Your task to perform on an android device: uninstall "Booking.com: Hotels and more" Image 0: 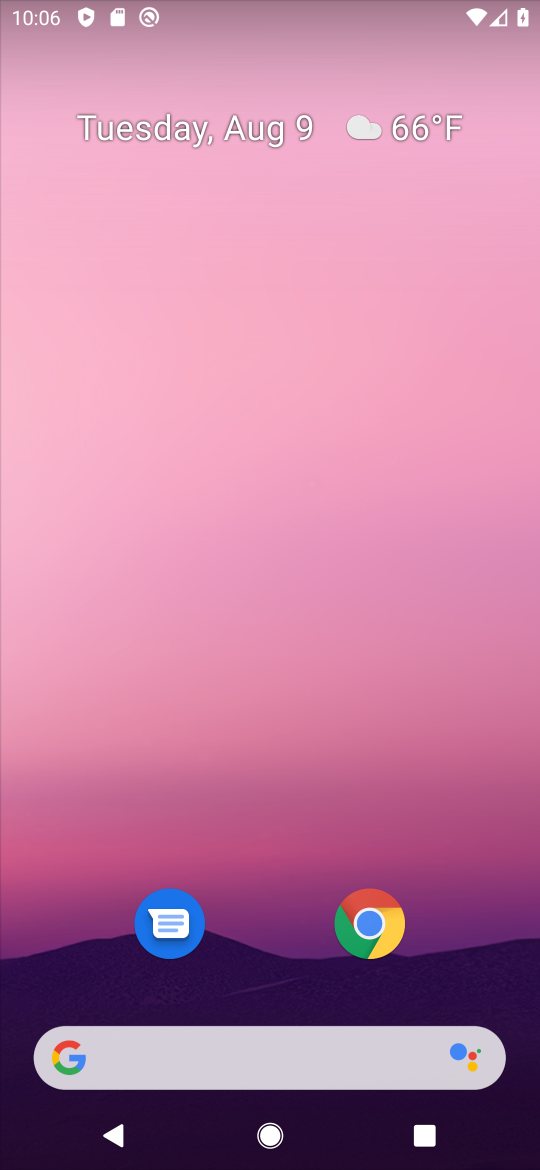
Step 0: press home button
Your task to perform on an android device: uninstall "Booking.com: Hotels and more" Image 1: 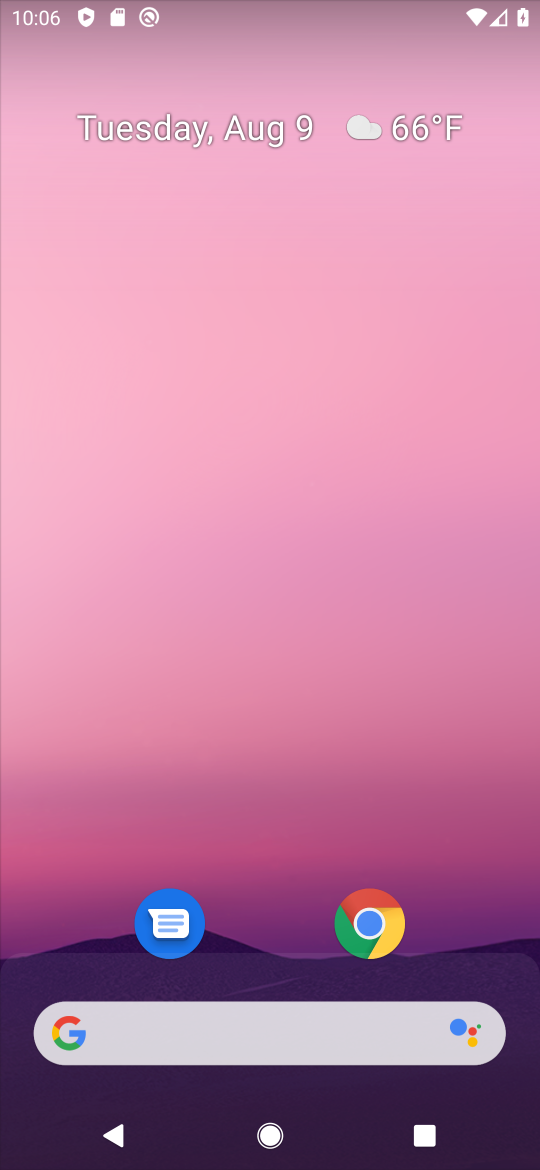
Step 1: drag from (285, 973) to (378, 95)
Your task to perform on an android device: uninstall "Booking.com: Hotels and more" Image 2: 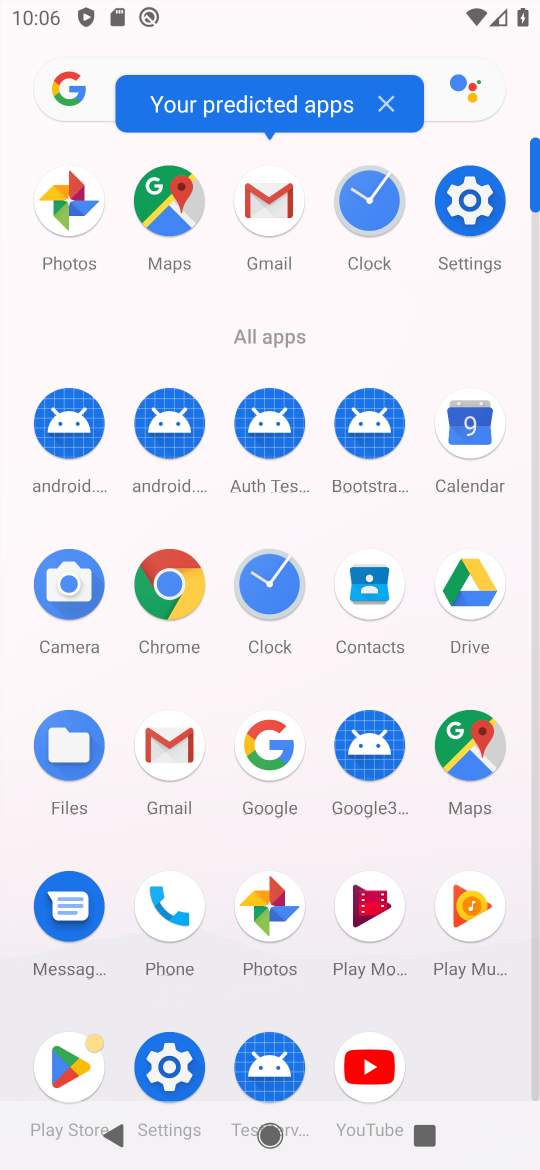
Step 2: click (61, 1054)
Your task to perform on an android device: uninstall "Booking.com: Hotels and more" Image 3: 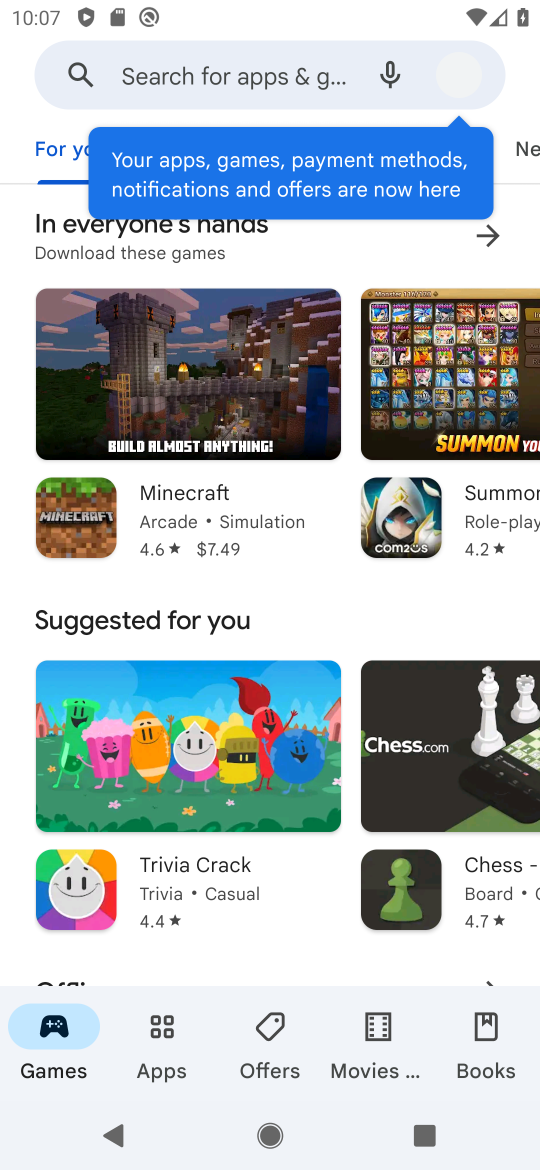
Step 3: click (156, 68)
Your task to perform on an android device: uninstall "Booking.com: Hotels and more" Image 4: 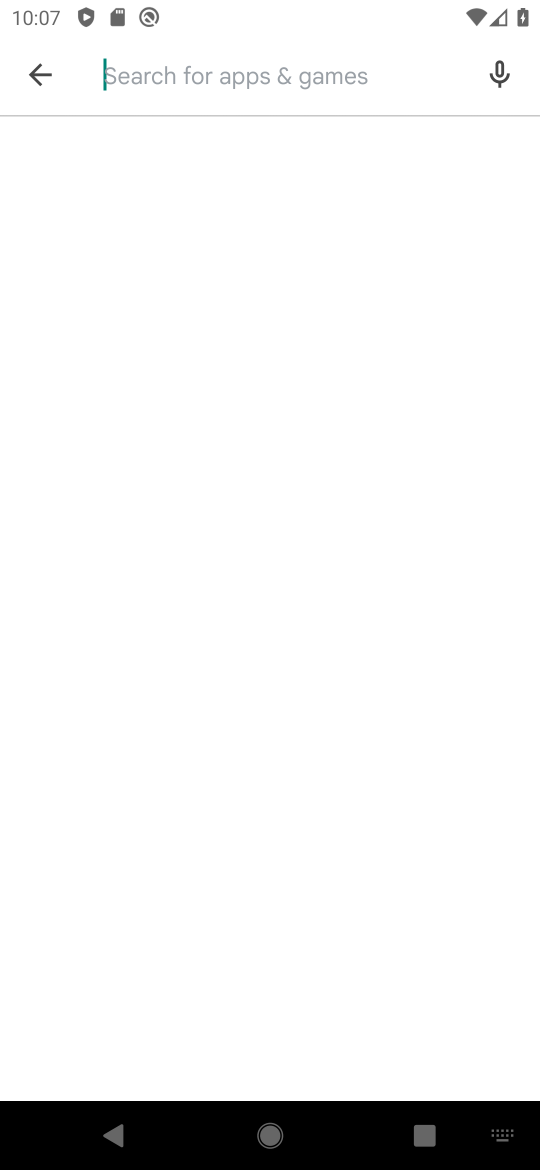
Step 4: type "Booking.com: Hotels and more"
Your task to perform on an android device: uninstall "Booking.com: Hotels and more" Image 5: 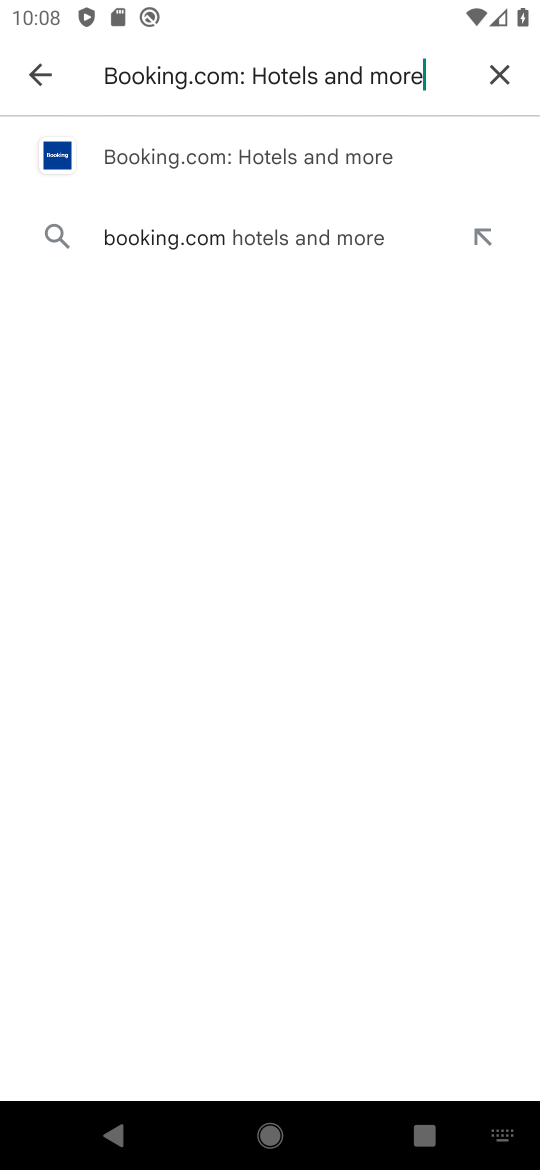
Step 5: click (86, 148)
Your task to perform on an android device: uninstall "Booking.com: Hotels and more" Image 6: 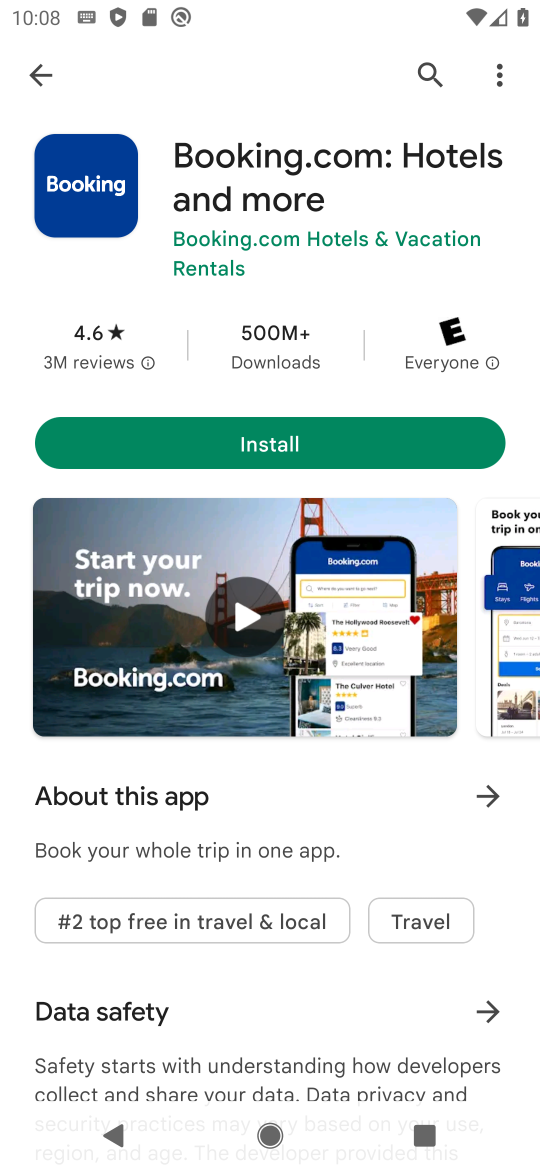
Step 6: task complete